Your task to perform on an android device: Open the phone app and click the voicemail tab. Image 0: 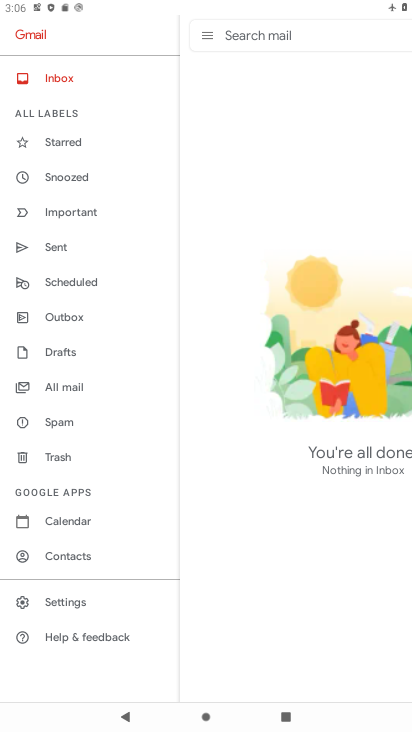
Step 0: press home button
Your task to perform on an android device: Open the phone app and click the voicemail tab. Image 1: 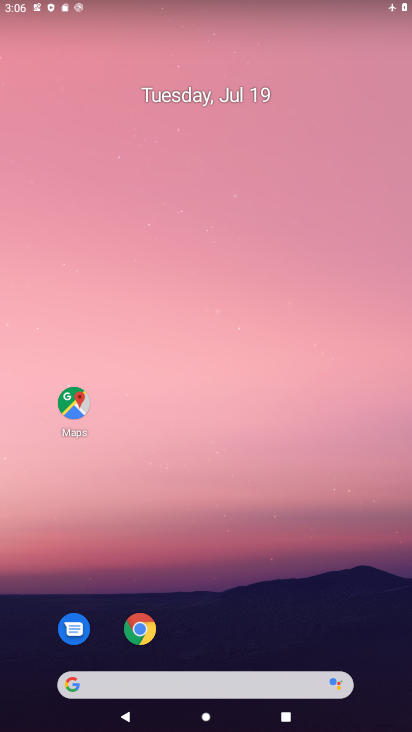
Step 1: drag from (196, 682) to (147, 296)
Your task to perform on an android device: Open the phone app and click the voicemail tab. Image 2: 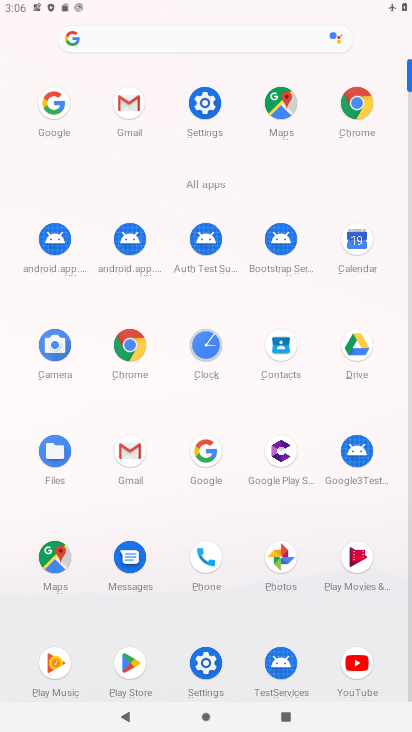
Step 2: click (213, 551)
Your task to perform on an android device: Open the phone app and click the voicemail tab. Image 3: 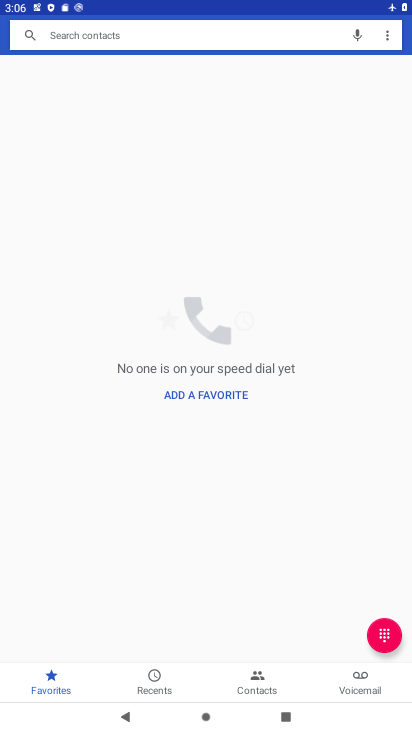
Step 3: click (349, 678)
Your task to perform on an android device: Open the phone app and click the voicemail tab. Image 4: 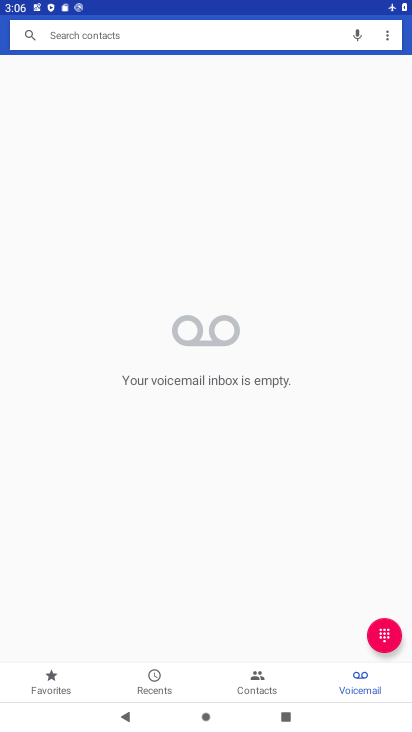
Step 4: task complete